Your task to perform on an android device: Show me popular games on the Play Store Image 0: 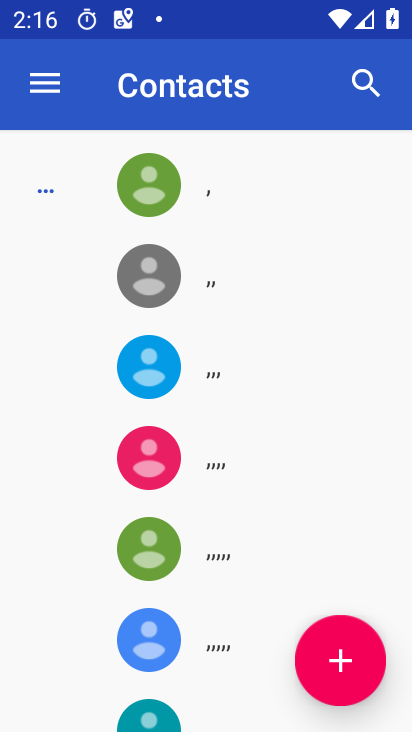
Step 0: press home button
Your task to perform on an android device: Show me popular games on the Play Store Image 1: 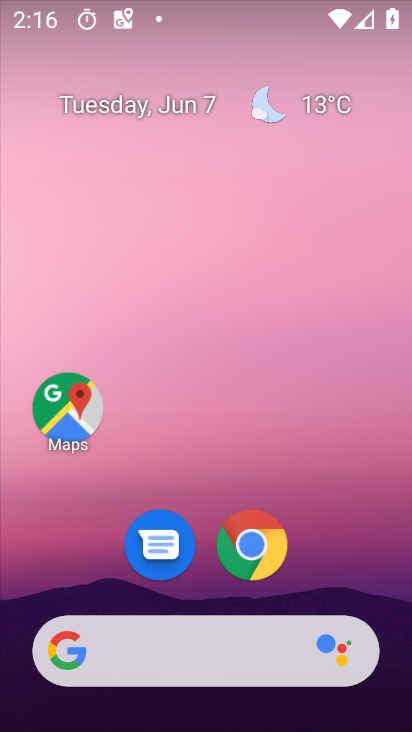
Step 1: drag from (355, 458) to (215, 9)
Your task to perform on an android device: Show me popular games on the Play Store Image 2: 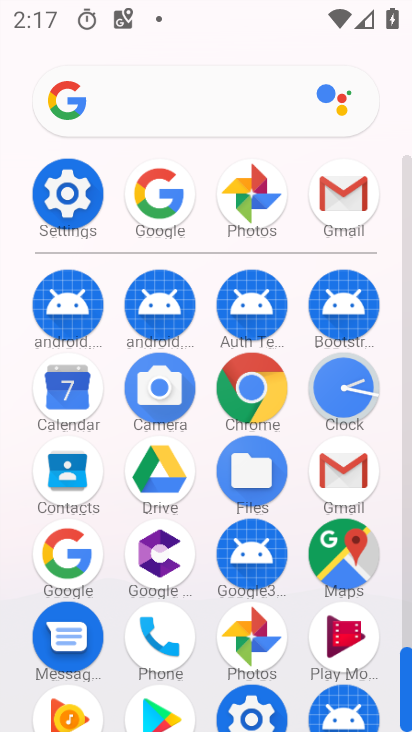
Step 2: click (147, 712)
Your task to perform on an android device: Show me popular games on the Play Store Image 3: 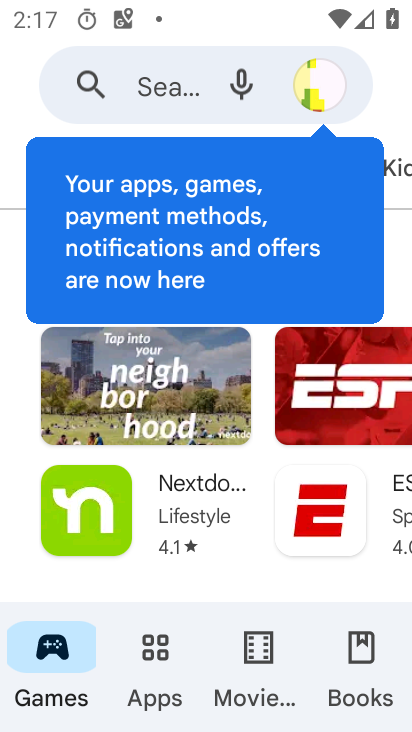
Step 3: click (11, 237)
Your task to perform on an android device: Show me popular games on the Play Store Image 4: 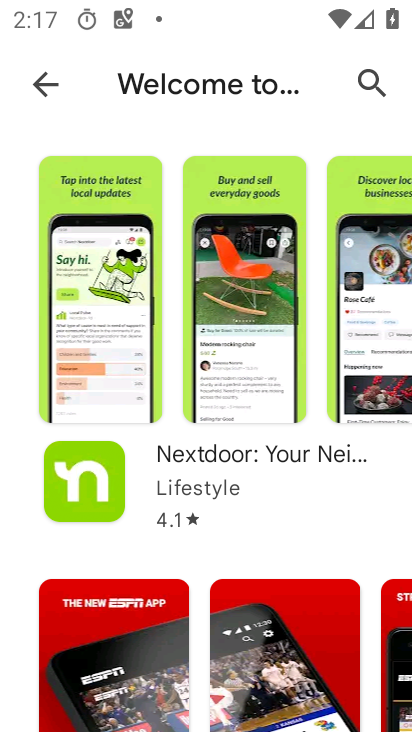
Step 4: click (263, 168)
Your task to perform on an android device: Show me popular games on the Play Store Image 5: 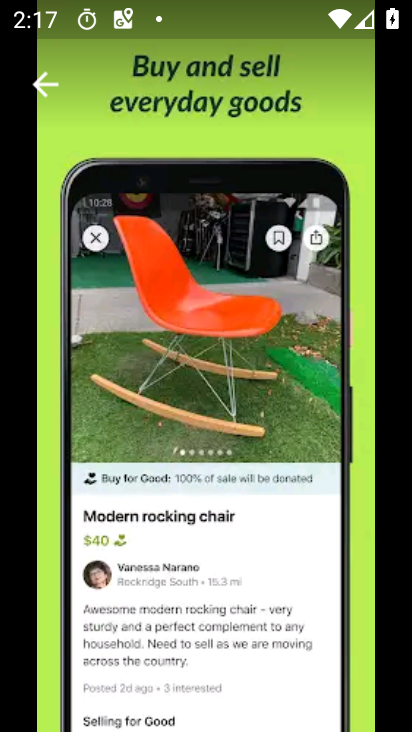
Step 5: click (55, 87)
Your task to perform on an android device: Show me popular games on the Play Store Image 6: 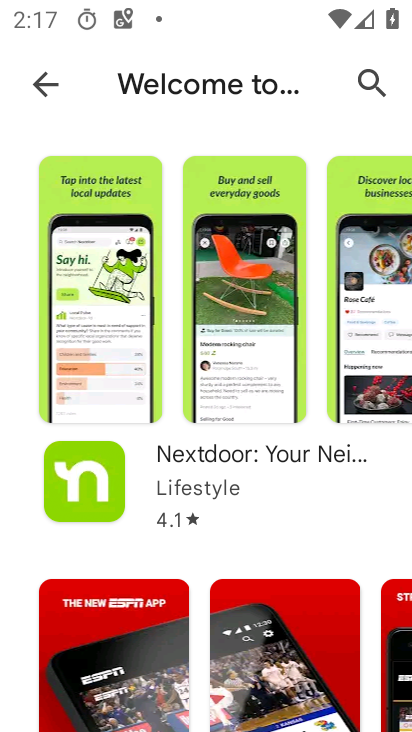
Step 6: click (49, 80)
Your task to perform on an android device: Show me popular games on the Play Store Image 7: 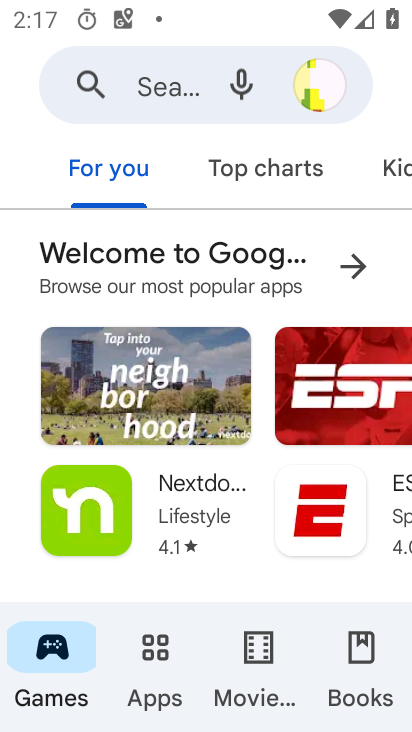
Step 7: click (233, 163)
Your task to perform on an android device: Show me popular games on the Play Store Image 8: 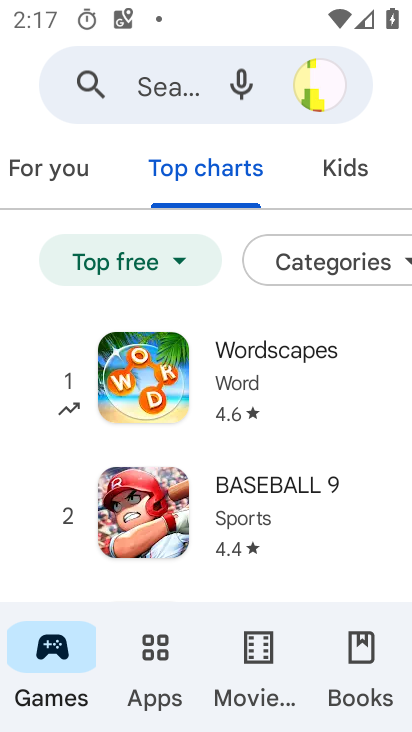
Step 8: task complete